Your task to perform on an android device: all mails in gmail Image 0: 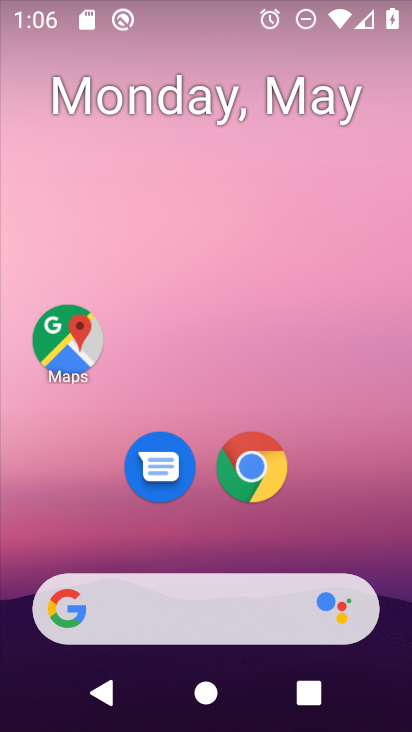
Step 0: drag from (386, 593) to (398, 6)
Your task to perform on an android device: all mails in gmail Image 1: 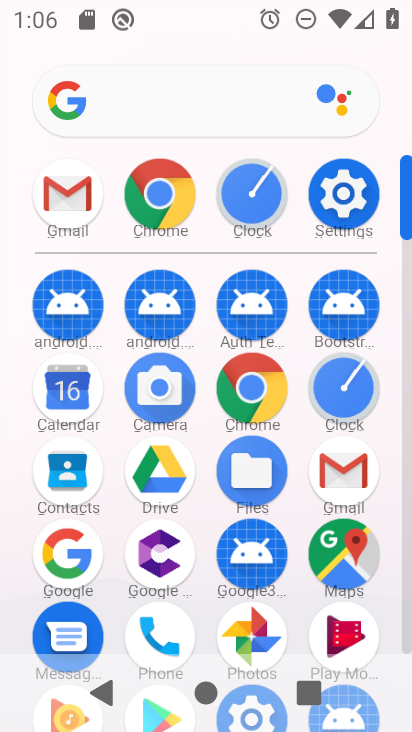
Step 1: click (58, 199)
Your task to perform on an android device: all mails in gmail Image 2: 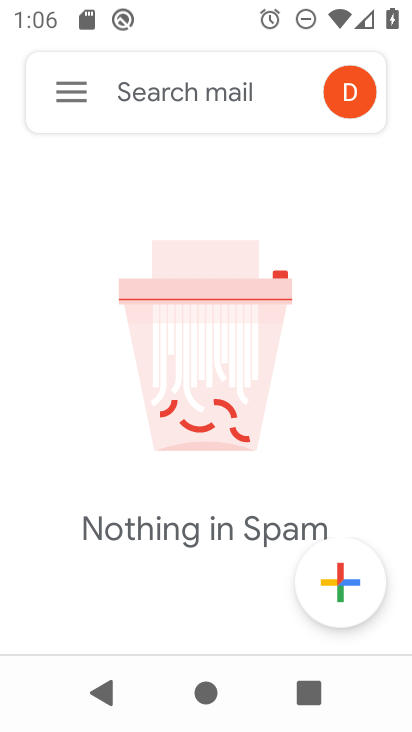
Step 2: click (73, 92)
Your task to perform on an android device: all mails in gmail Image 3: 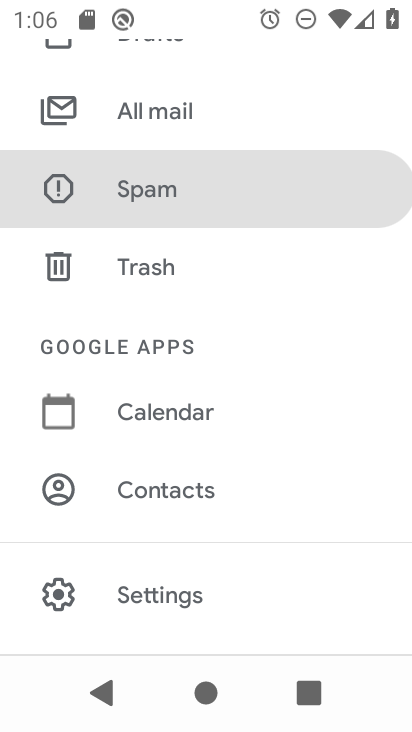
Step 3: click (126, 120)
Your task to perform on an android device: all mails in gmail Image 4: 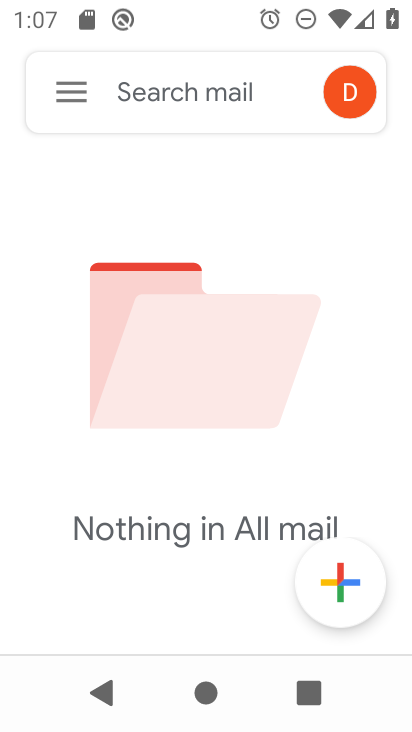
Step 4: task complete